Your task to perform on an android device: turn off notifications in google photos Image 0: 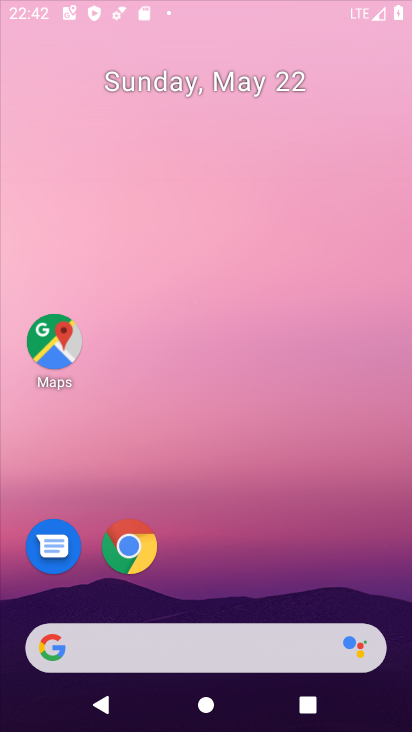
Step 0: click (309, 84)
Your task to perform on an android device: turn off notifications in google photos Image 1: 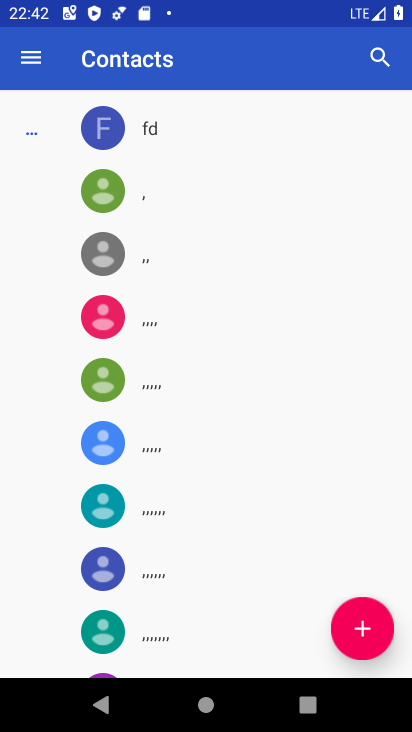
Step 1: press home button
Your task to perform on an android device: turn off notifications in google photos Image 2: 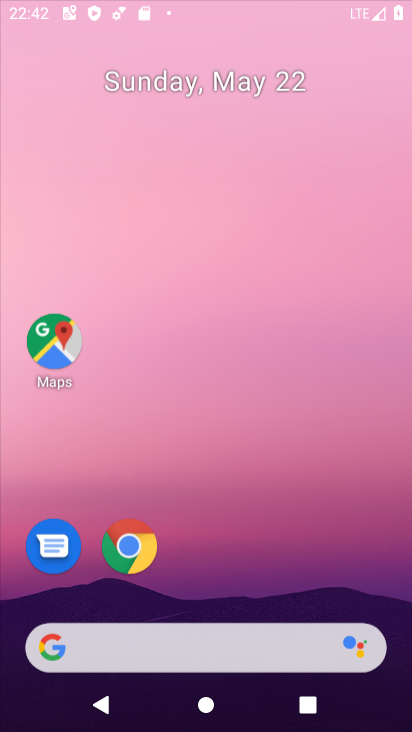
Step 2: drag from (247, 543) to (239, 5)
Your task to perform on an android device: turn off notifications in google photos Image 3: 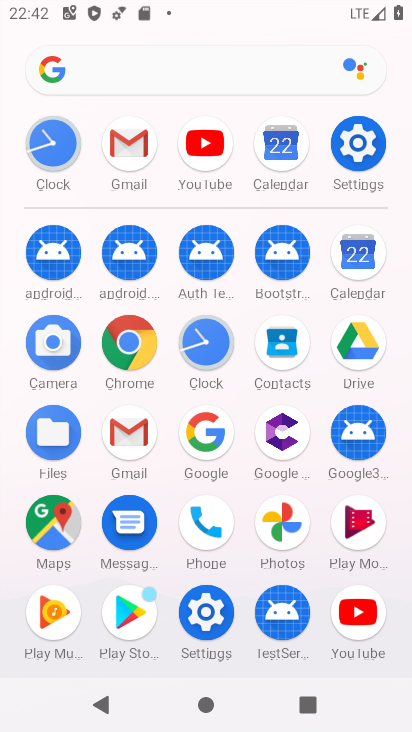
Step 3: click (284, 509)
Your task to perform on an android device: turn off notifications in google photos Image 4: 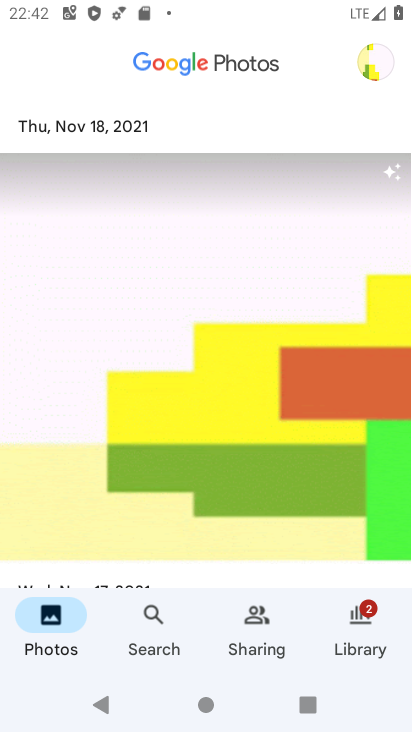
Step 4: press back button
Your task to perform on an android device: turn off notifications in google photos Image 5: 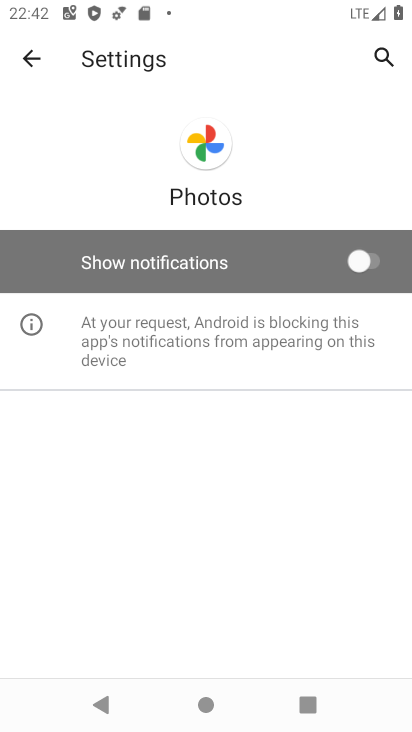
Step 5: drag from (195, 547) to (344, 30)
Your task to perform on an android device: turn off notifications in google photos Image 6: 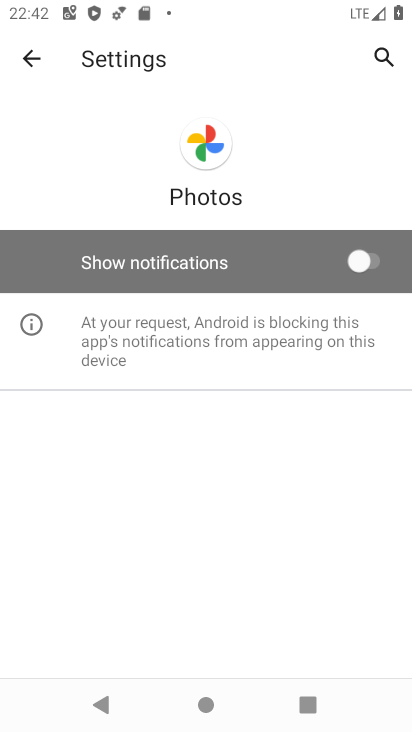
Step 6: press home button
Your task to perform on an android device: turn off notifications in google photos Image 7: 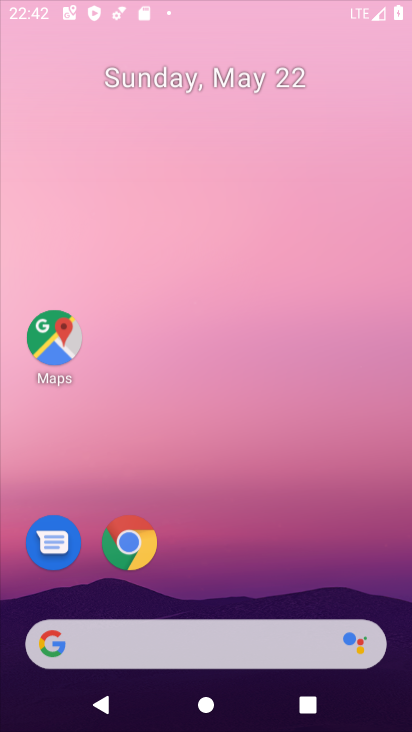
Step 7: drag from (111, 473) to (247, 36)
Your task to perform on an android device: turn off notifications in google photos Image 8: 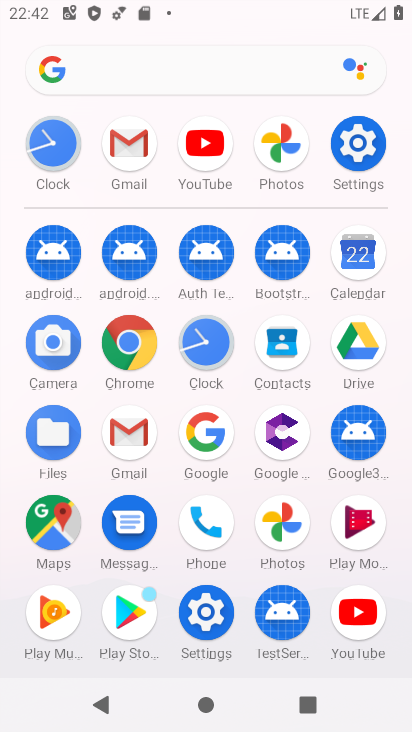
Step 8: click (293, 519)
Your task to perform on an android device: turn off notifications in google photos Image 9: 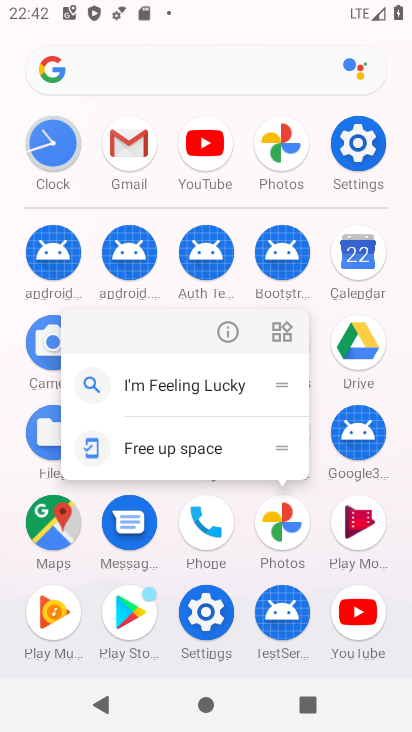
Step 9: click (220, 332)
Your task to perform on an android device: turn off notifications in google photos Image 10: 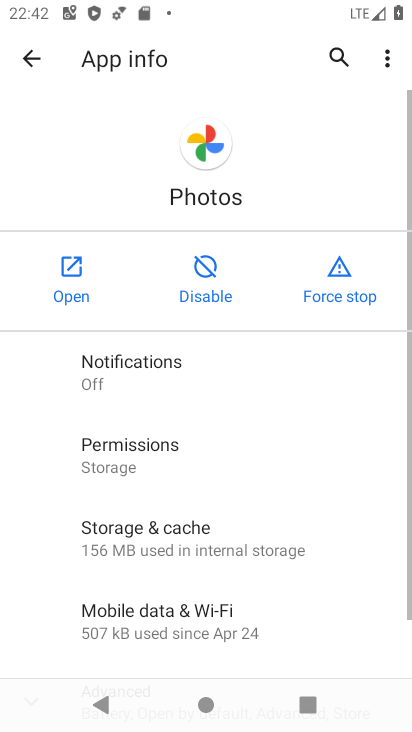
Step 10: click (74, 261)
Your task to perform on an android device: turn off notifications in google photos Image 11: 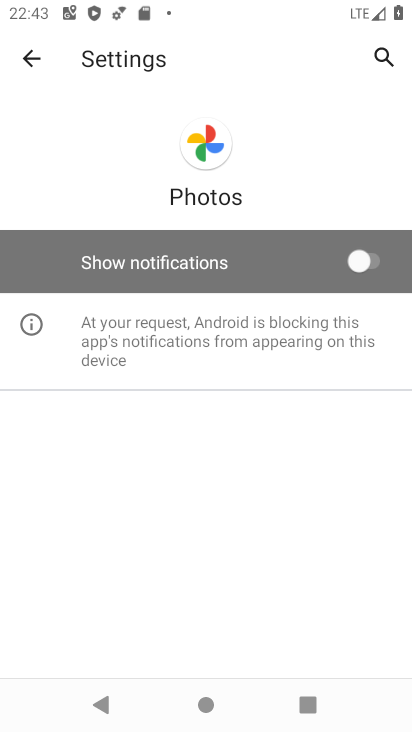
Step 11: task complete